Your task to perform on an android device: turn off data saver in the chrome app Image 0: 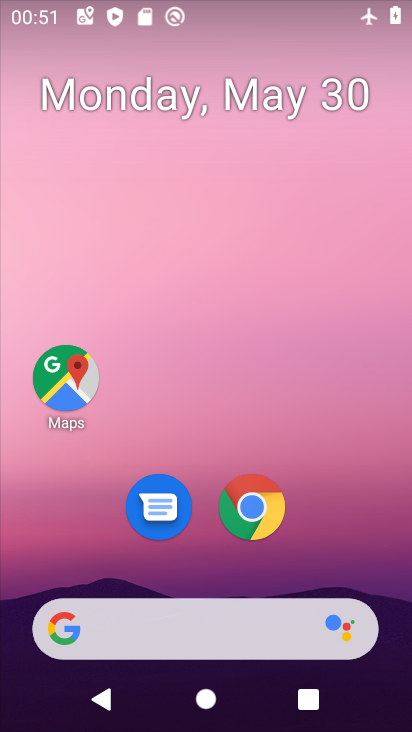
Step 0: drag from (317, 475) to (322, 180)
Your task to perform on an android device: turn off data saver in the chrome app Image 1: 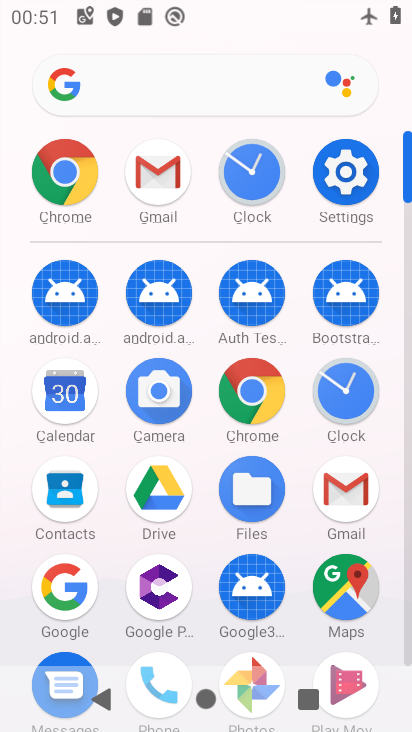
Step 1: click (259, 373)
Your task to perform on an android device: turn off data saver in the chrome app Image 2: 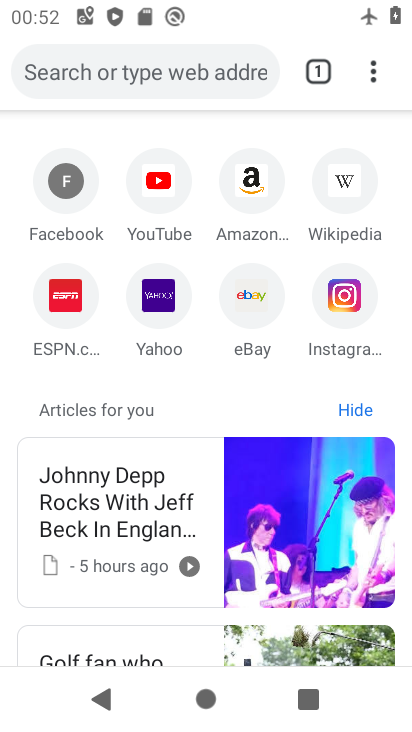
Step 2: click (377, 68)
Your task to perform on an android device: turn off data saver in the chrome app Image 3: 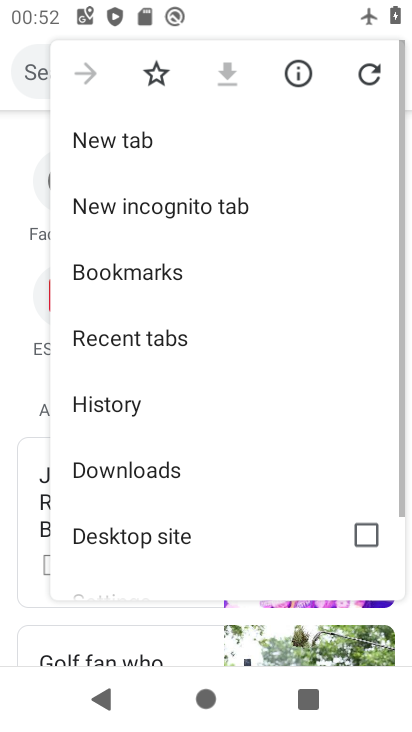
Step 3: drag from (216, 495) to (221, 240)
Your task to perform on an android device: turn off data saver in the chrome app Image 4: 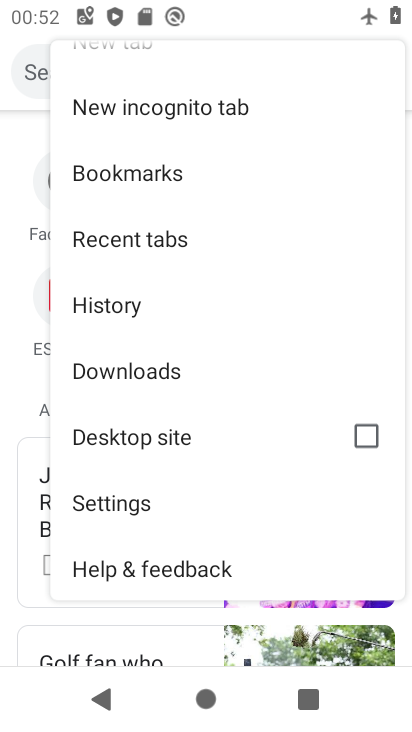
Step 4: click (138, 506)
Your task to perform on an android device: turn off data saver in the chrome app Image 5: 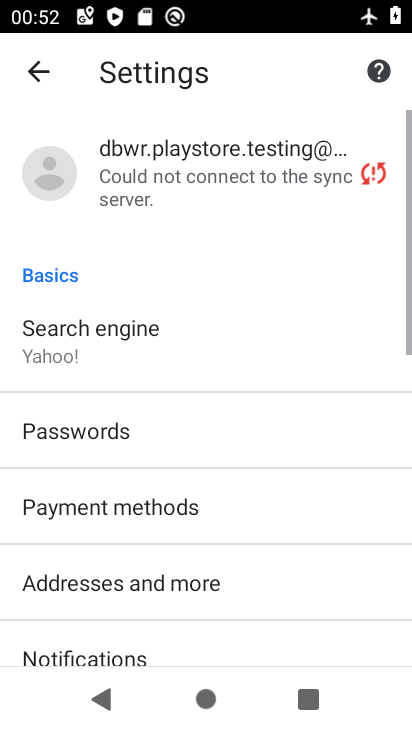
Step 5: drag from (212, 566) to (213, 213)
Your task to perform on an android device: turn off data saver in the chrome app Image 6: 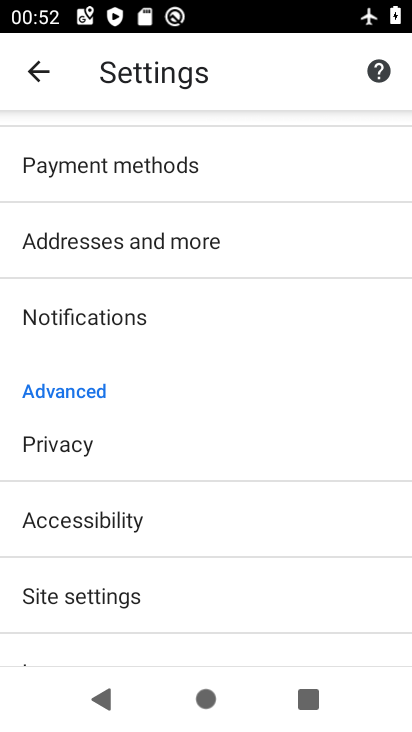
Step 6: click (142, 600)
Your task to perform on an android device: turn off data saver in the chrome app Image 7: 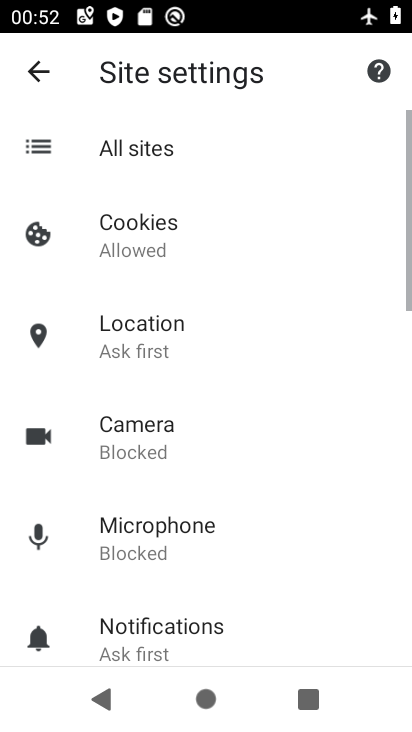
Step 7: drag from (160, 582) to (215, 244)
Your task to perform on an android device: turn off data saver in the chrome app Image 8: 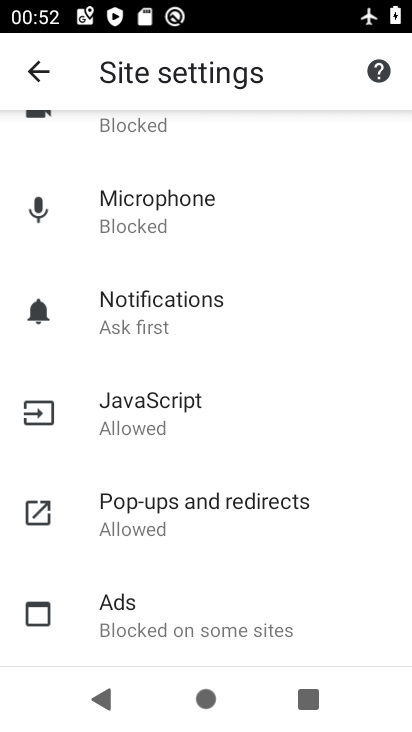
Step 8: drag from (172, 574) to (182, 307)
Your task to perform on an android device: turn off data saver in the chrome app Image 9: 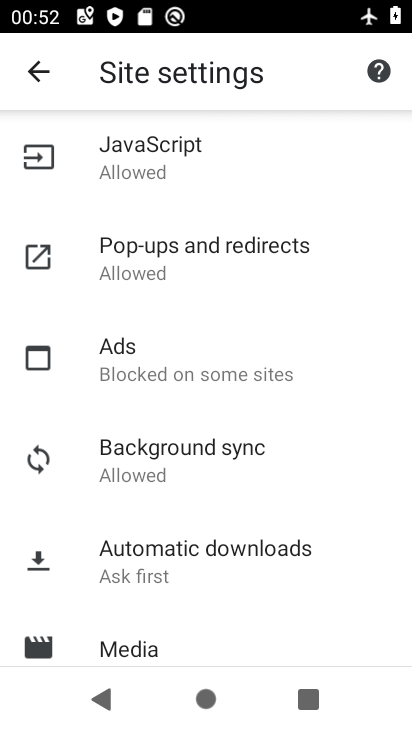
Step 9: drag from (169, 565) to (214, 249)
Your task to perform on an android device: turn off data saver in the chrome app Image 10: 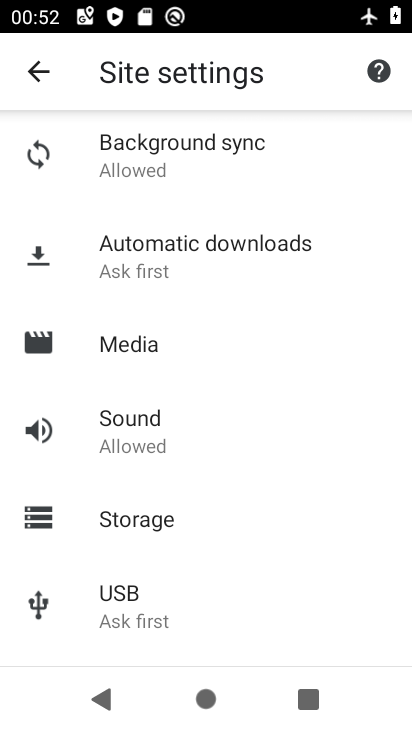
Step 10: drag from (192, 248) to (206, 576)
Your task to perform on an android device: turn off data saver in the chrome app Image 11: 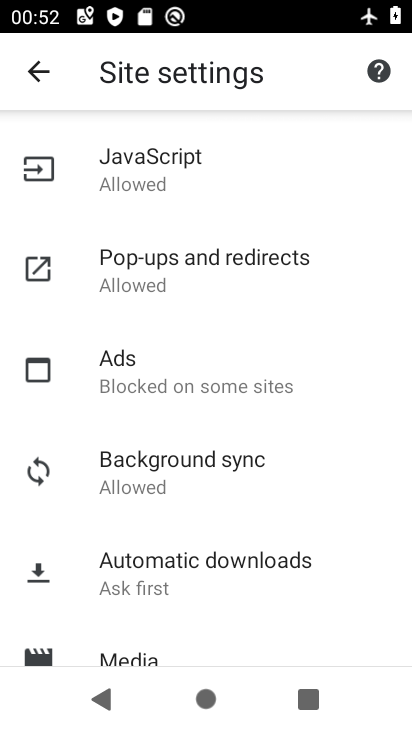
Step 11: drag from (181, 207) to (221, 500)
Your task to perform on an android device: turn off data saver in the chrome app Image 12: 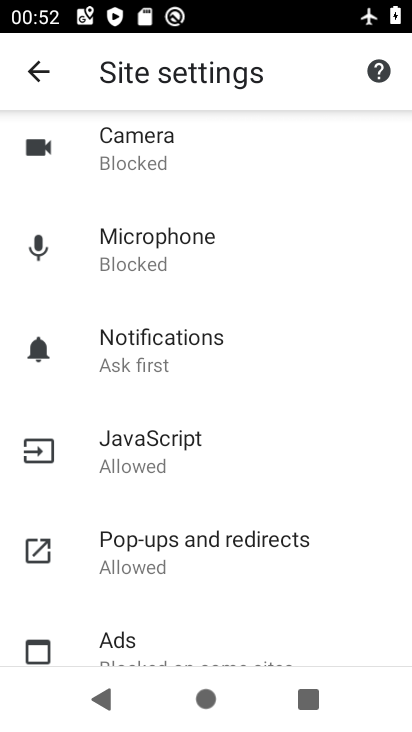
Step 12: drag from (166, 574) to (165, 452)
Your task to perform on an android device: turn off data saver in the chrome app Image 13: 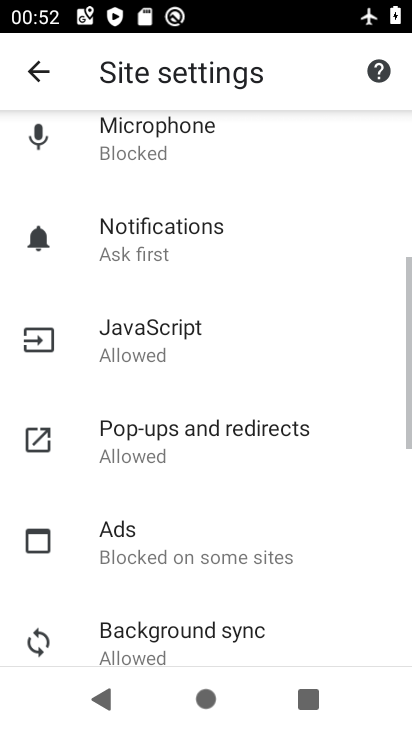
Step 13: click (38, 54)
Your task to perform on an android device: turn off data saver in the chrome app Image 14: 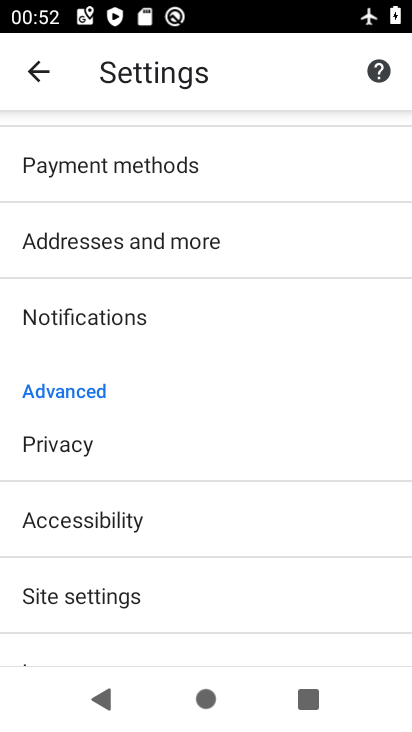
Step 14: drag from (164, 589) to (182, 407)
Your task to perform on an android device: turn off data saver in the chrome app Image 15: 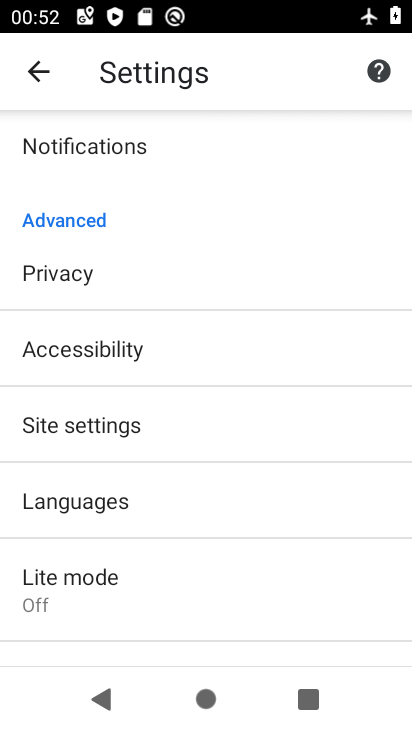
Step 15: click (157, 596)
Your task to perform on an android device: turn off data saver in the chrome app Image 16: 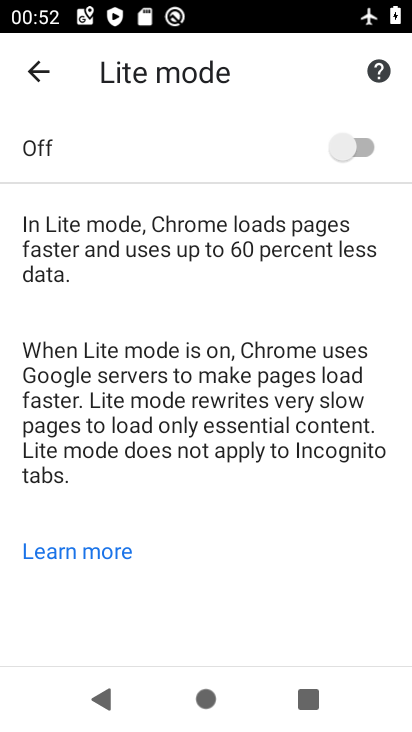
Step 16: task complete